Your task to perform on an android device: toggle data saver in the chrome app Image 0: 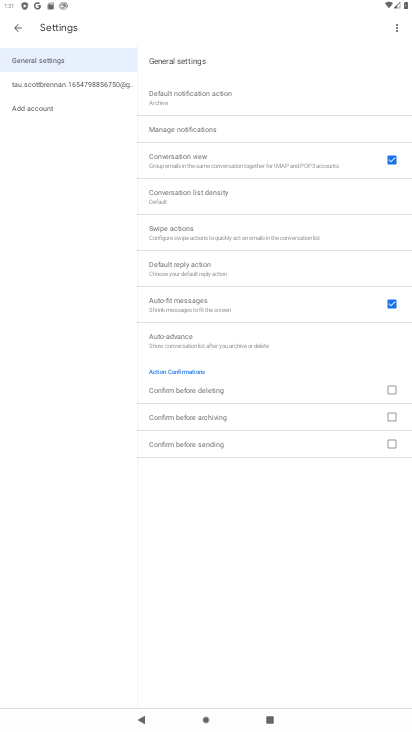
Step 0: press home button
Your task to perform on an android device: toggle data saver in the chrome app Image 1: 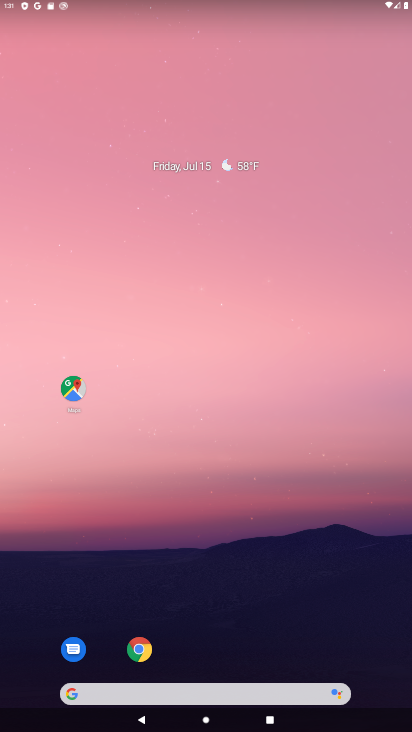
Step 1: drag from (236, 681) to (209, 156)
Your task to perform on an android device: toggle data saver in the chrome app Image 2: 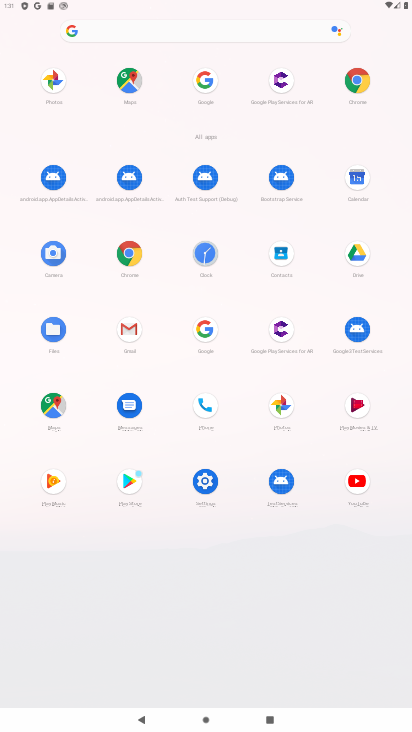
Step 2: click (125, 279)
Your task to perform on an android device: toggle data saver in the chrome app Image 3: 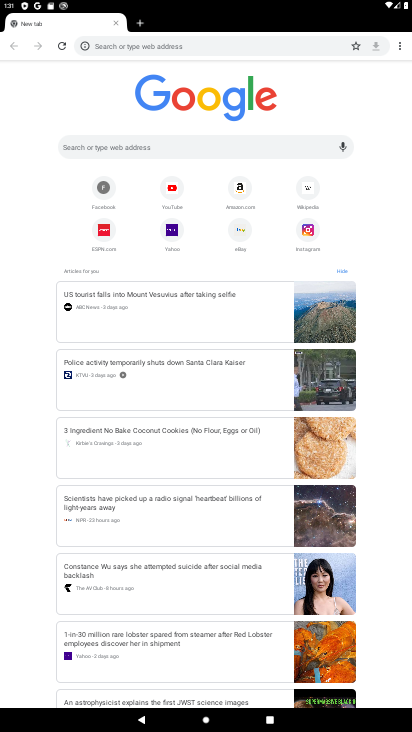
Step 3: drag from (396, 52) to (315, 212)
Your task to perform on an android device: toggle data saver in the chrome app Image 4: 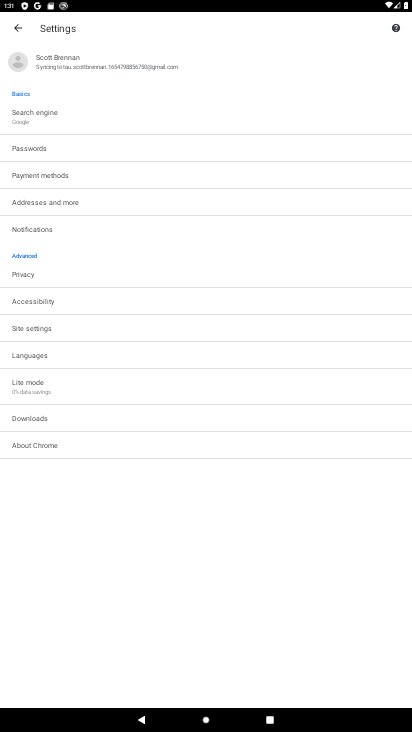
Step 4: click (70, 391)
Your task to perform on an android device: toggle data saver in the chrome app Image 5: 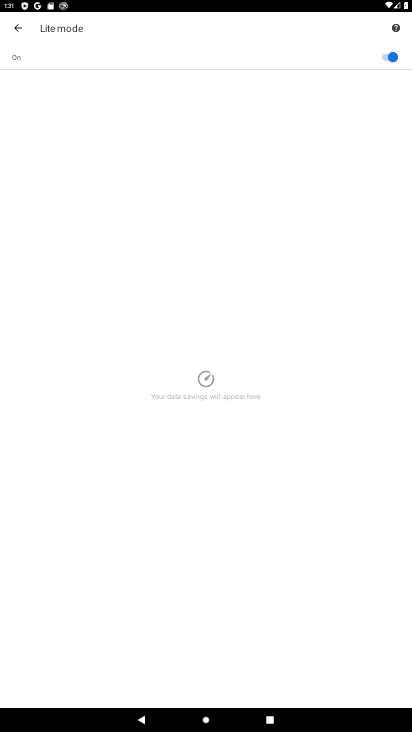
Step 5: click (381, 54)
Your task to perform on an android device: toggle data saver in the chrome app Image 6: 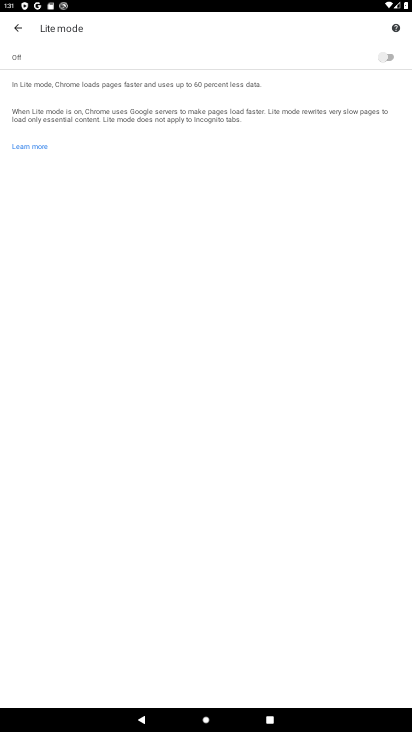
Step 6: task complete